Your task to perform on an android device: change the clock display to show seconds Image 0: 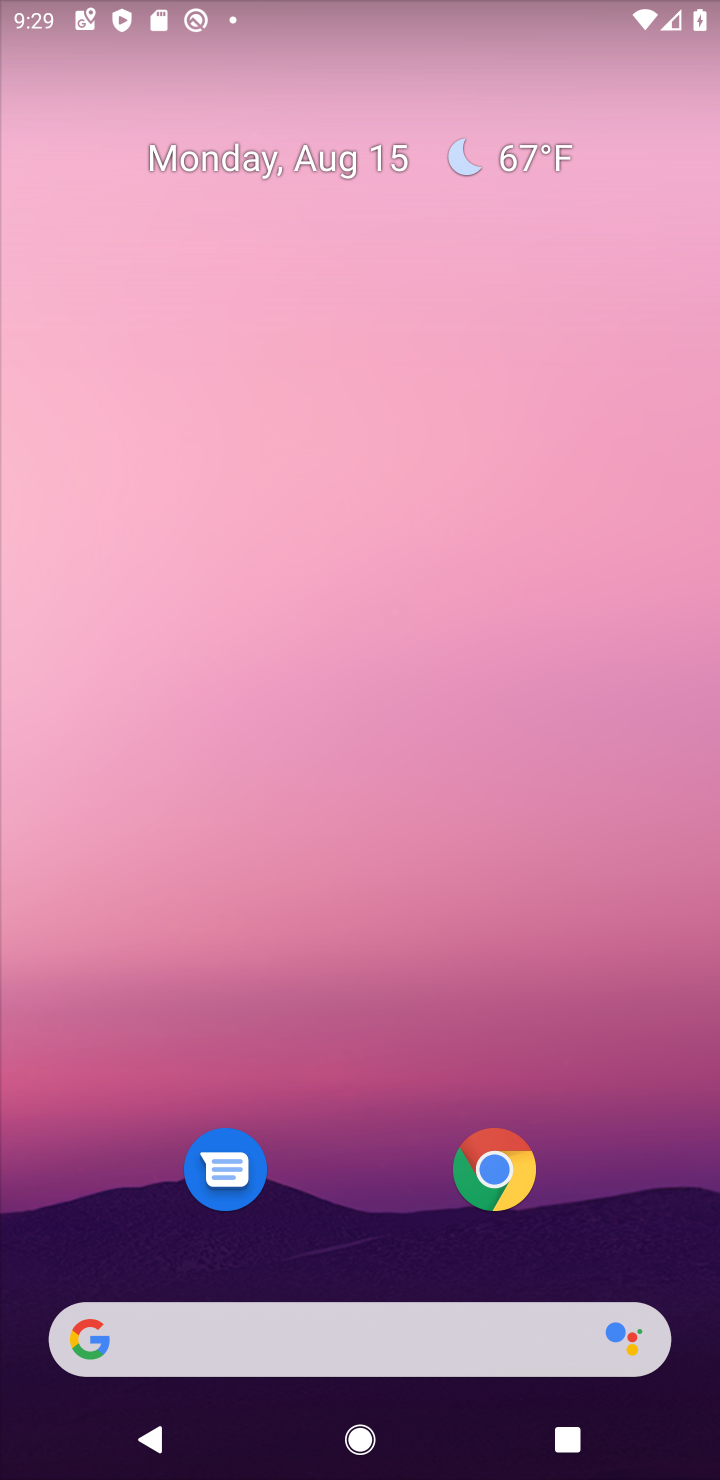
Step 0: drag from (393, 1261) to (634, 55)
Your task to perform on an android device: change the clock display to show seconds Image 1: 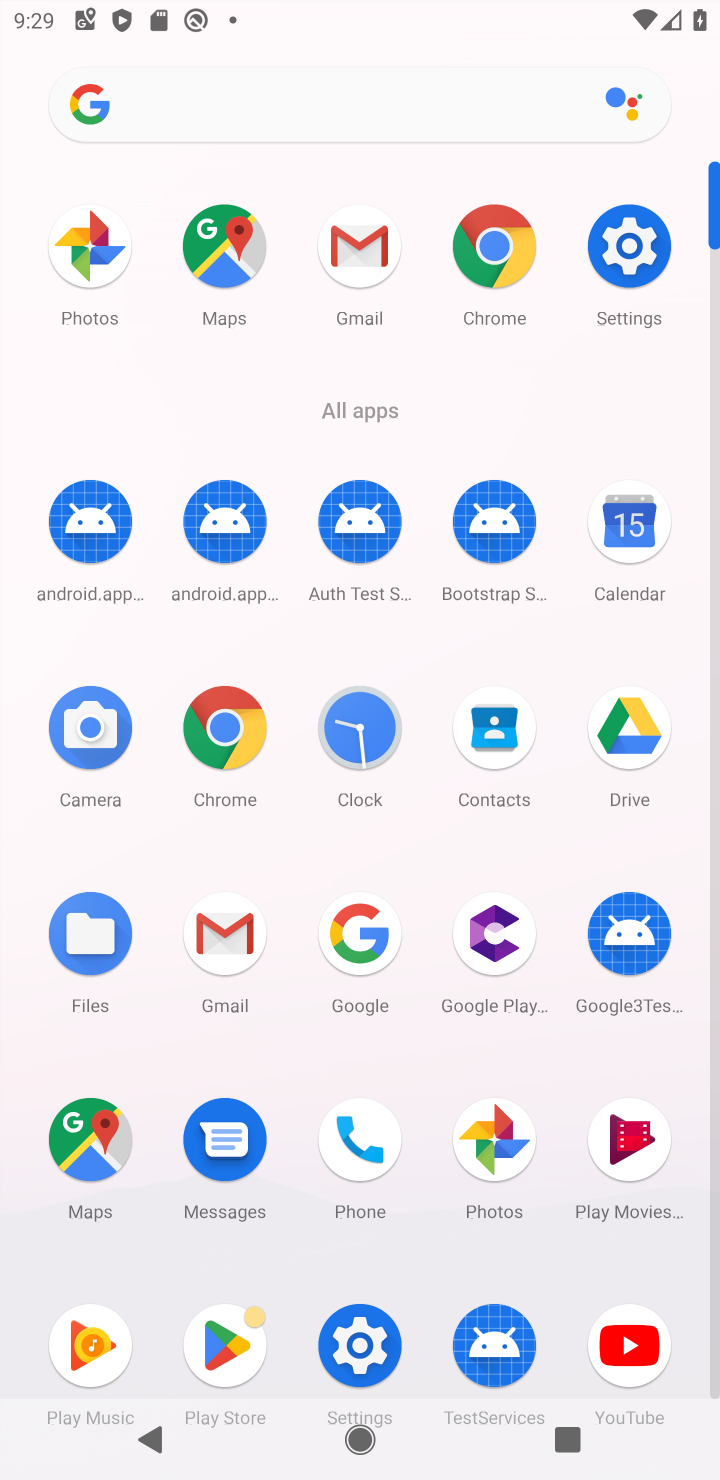
Step 1: click (373, 728)
Your task to perform on an android device: change the clock display to show seconds Image 2: 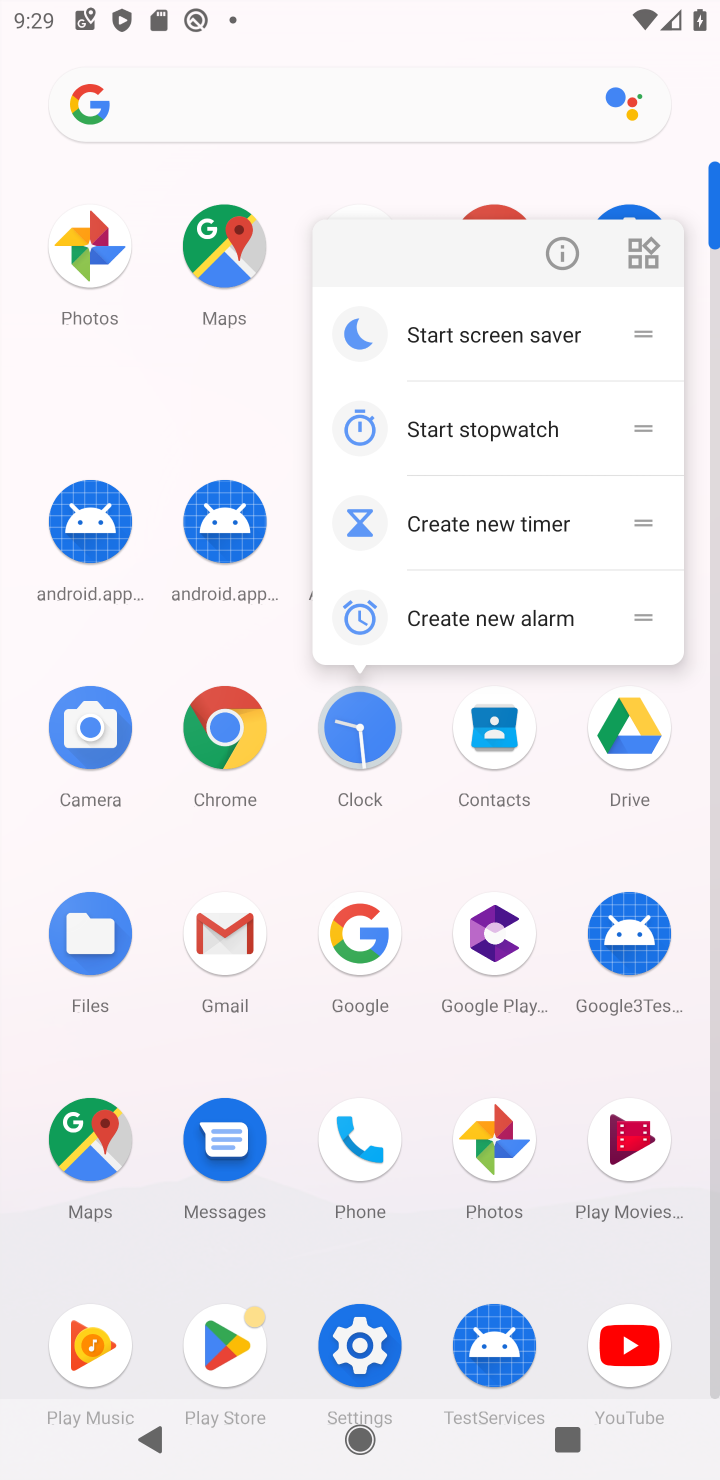
Step 2: click (362, 740)
Your task to perform on an android device: change the clock display to show seconds Image 3: 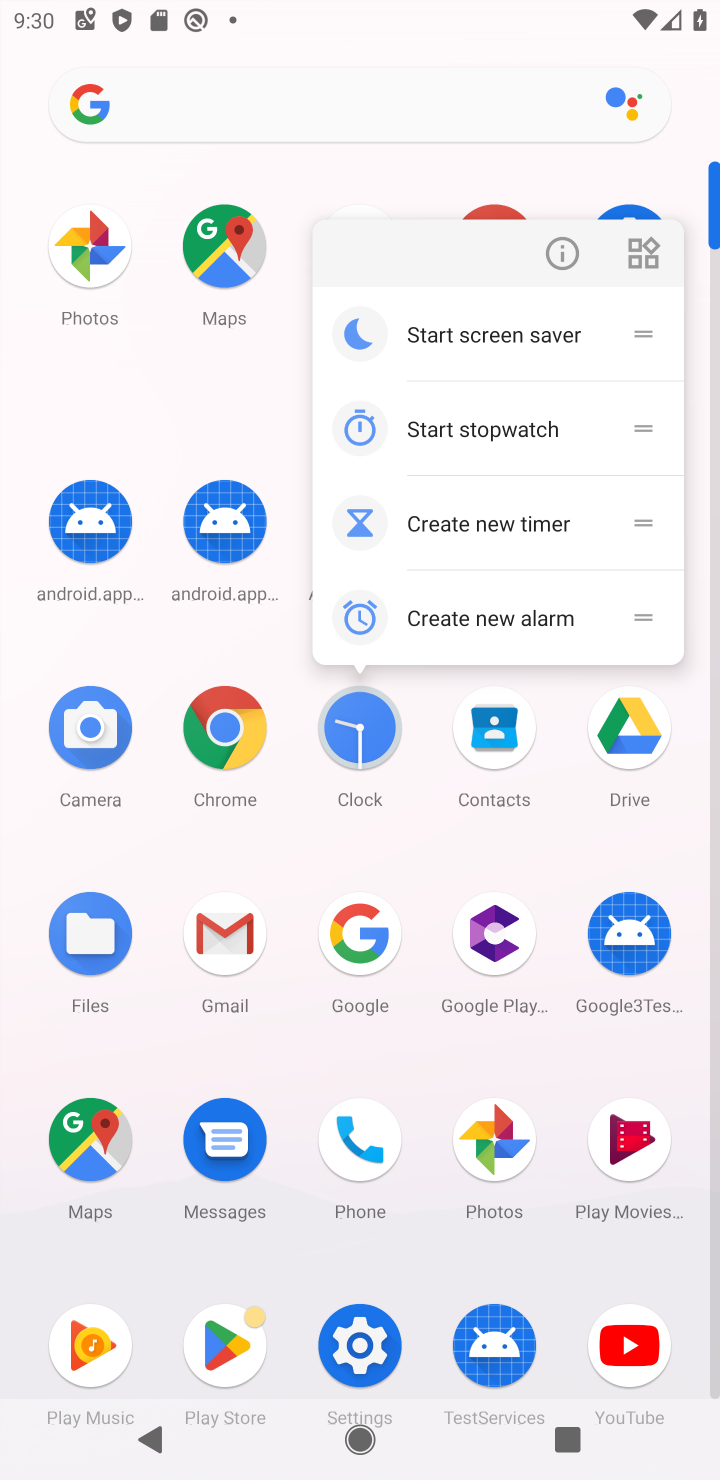
Step 3: click (362, 742)
Your task to perform on an android device: change the clock display to show seconds Image 4: 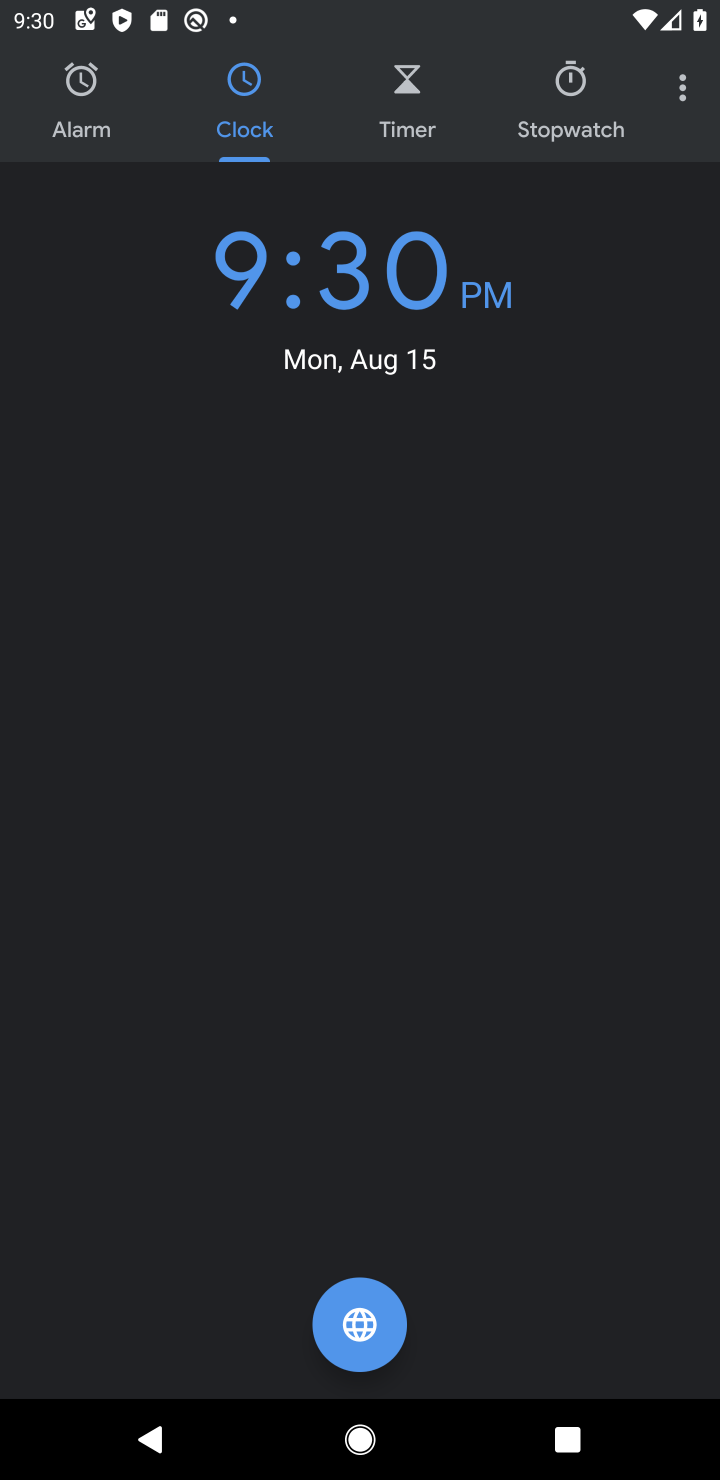
Step 4: click (681, 86)
Your task to perform on an android device: change the clock display to show seconds Image 5: 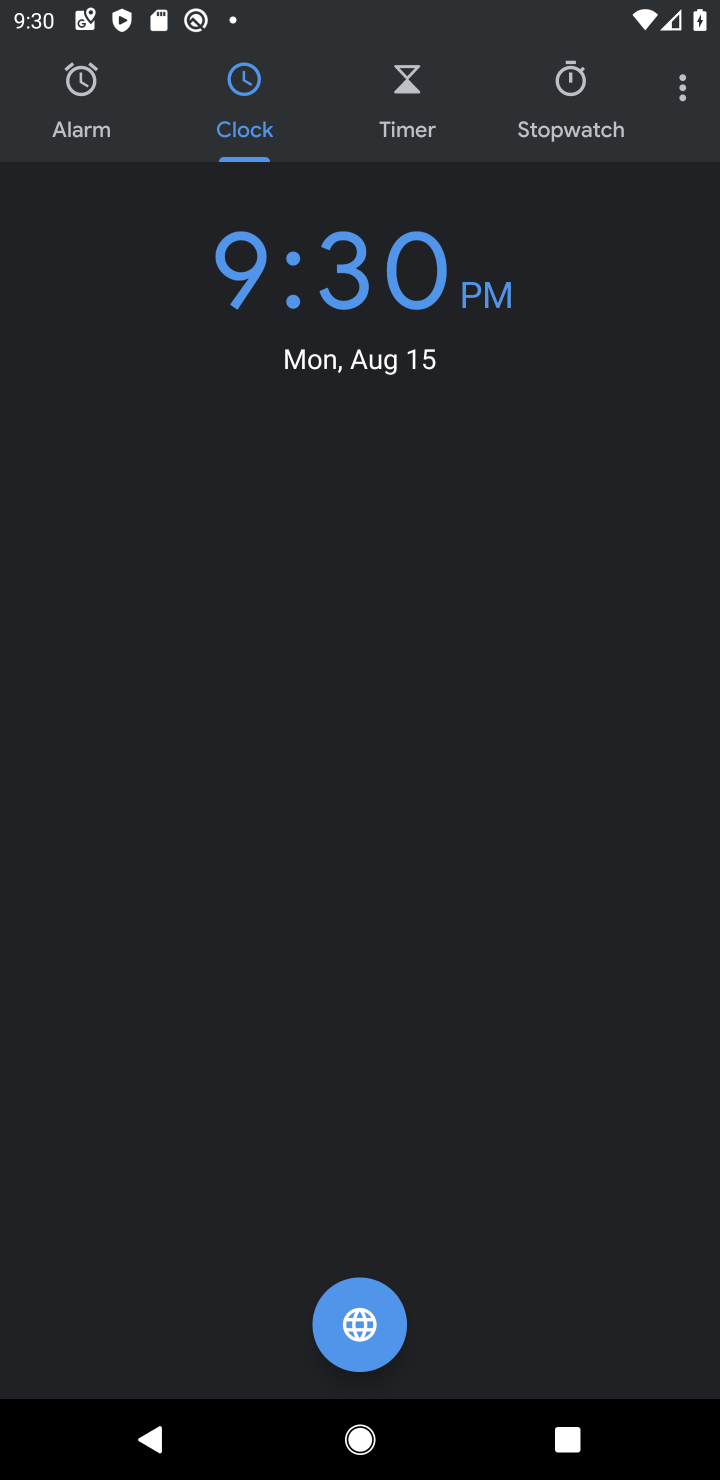
Step 5: click (675, 89)
Your task to perform on an android device: change the clock display to show seconds Image 6: 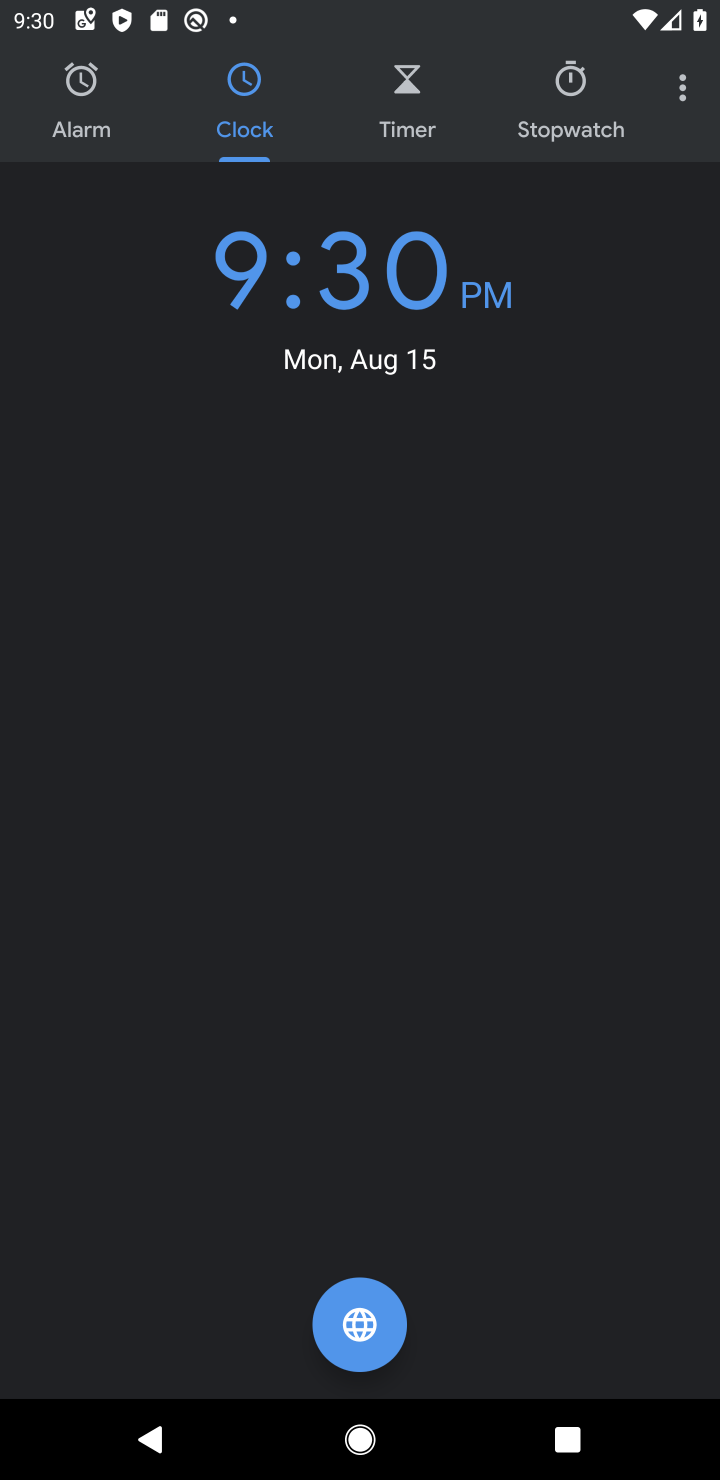
Step 6: click (688, 107)
Your task to perform on an android device: change the clock display to show seconds Image 7: 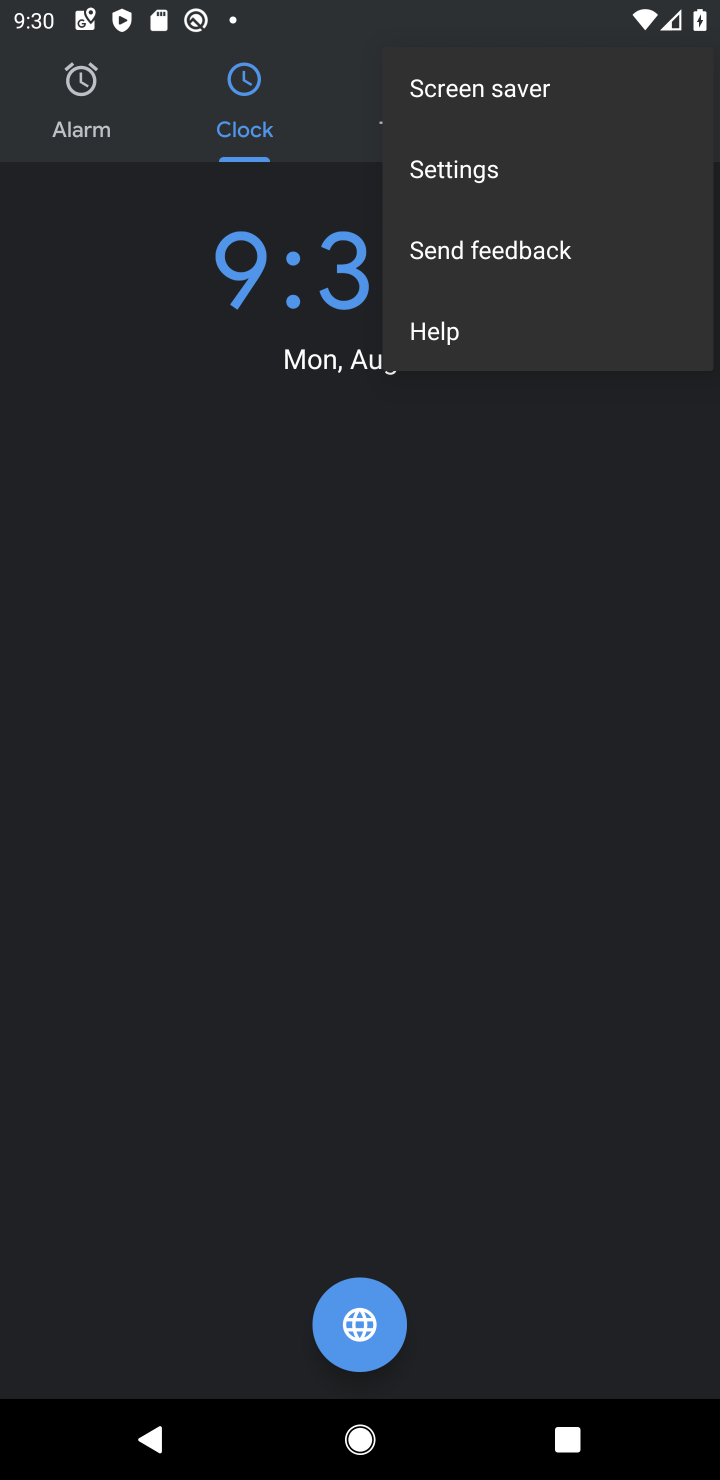
Step 7: click (540, 165)
Your task to perform on an android device: change the clock display to show seconds Image 8: 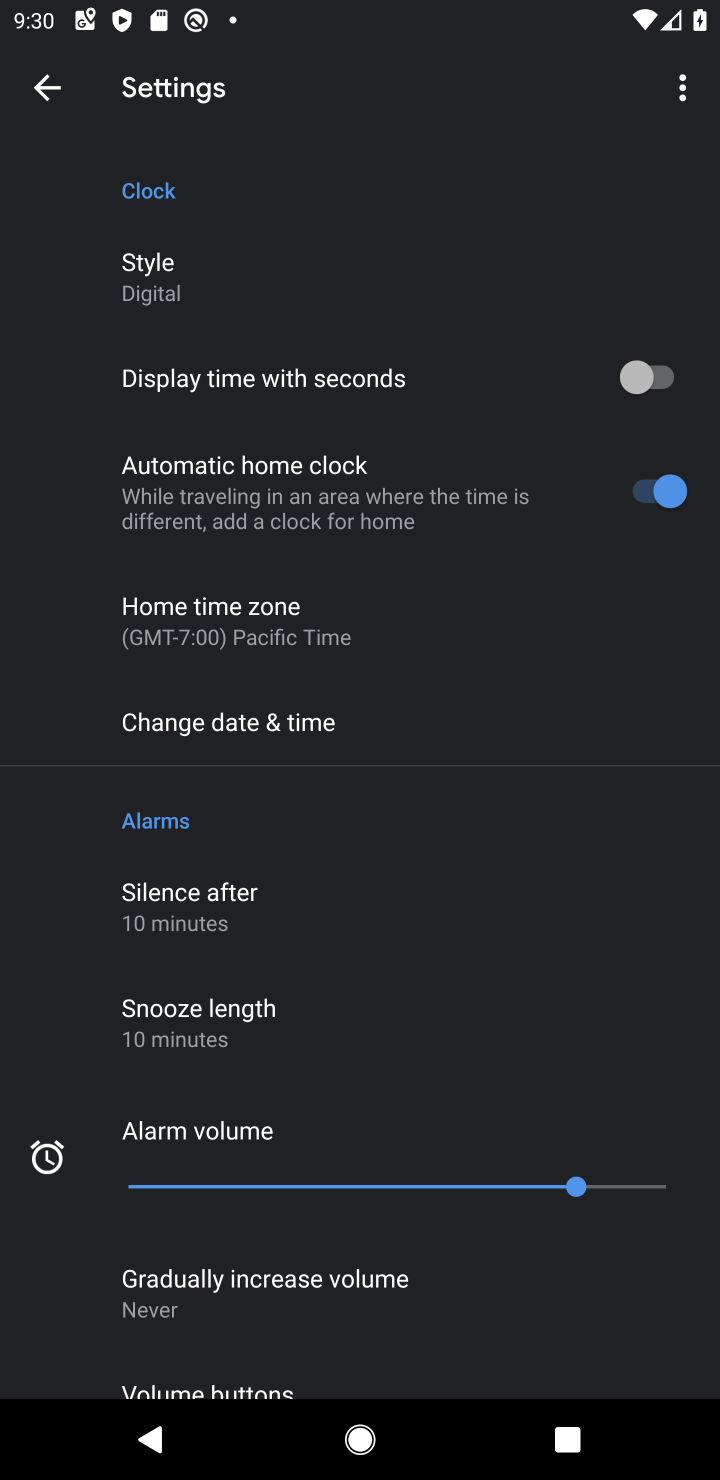
Step 8: click (672, 375)
Your task to perform on an android device: change the clock display to show seconds Image 9: 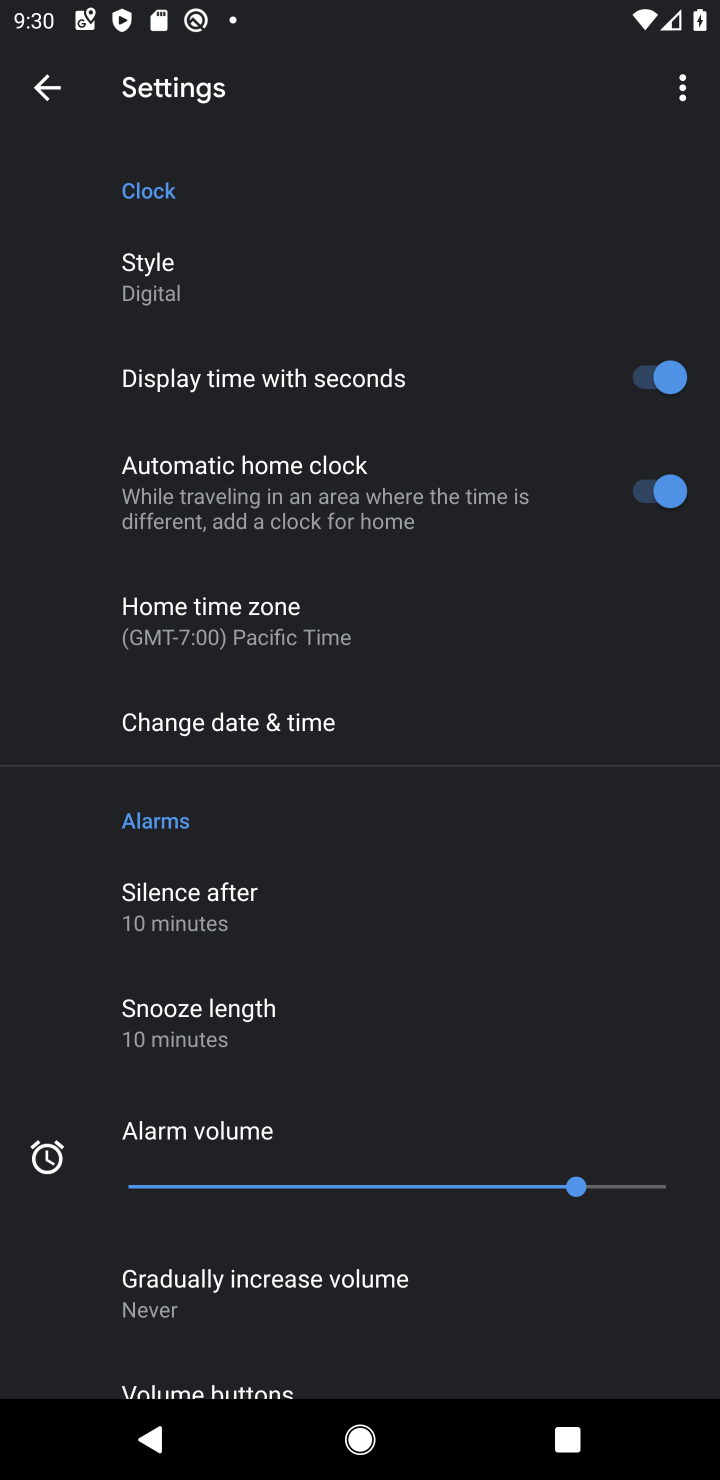
Step 9: task complete